Your task to perform on an android device: turn on bluetooth scan Image 0: 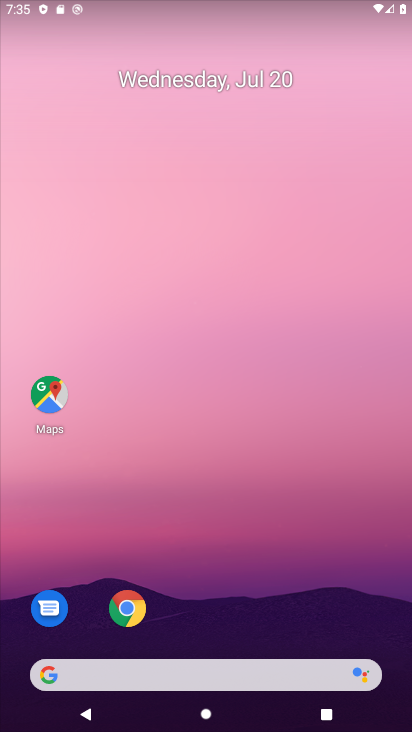
Step 0: drag from (187, 641) to (209, 123)
Your task to perform on an android device: turn on bluetooth scan Image 1: 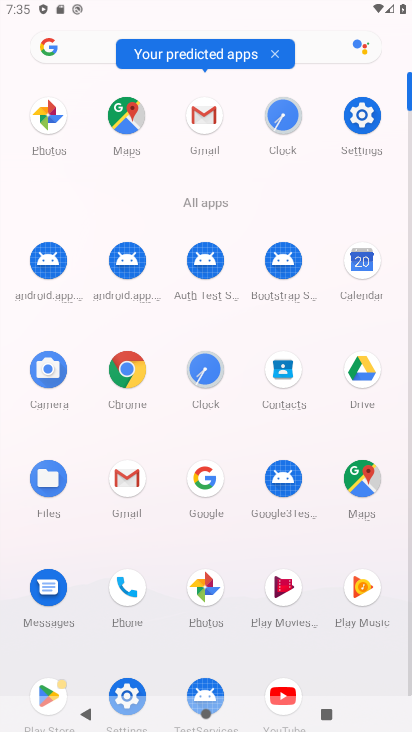
Step 1: click (136, 683)
Your task to perform on an android device: turn on bluetooth scan Image 2: 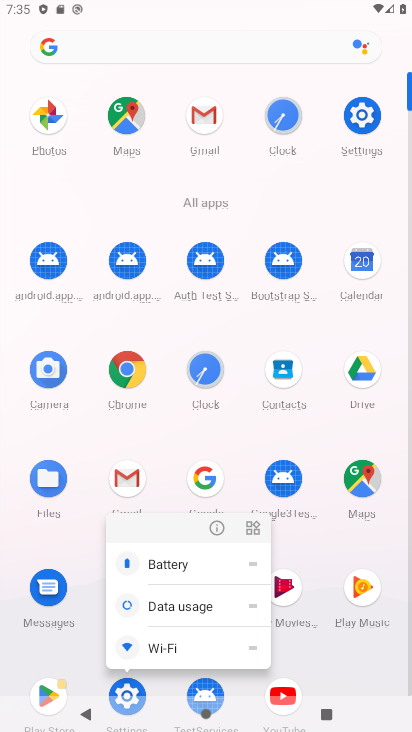
Step 2: click (136, 683)
Your task to perform on an android device: turn on bluetooth scan Image 3: 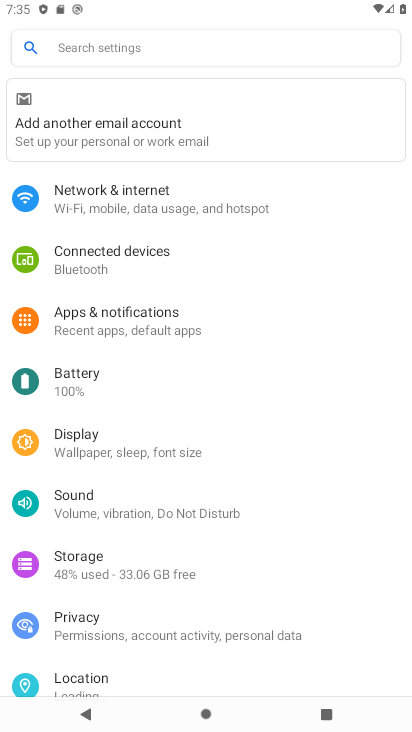
Step 3: click (106, 686)
Your task to perform on an android device: turn on bluetooth scan Image 4: 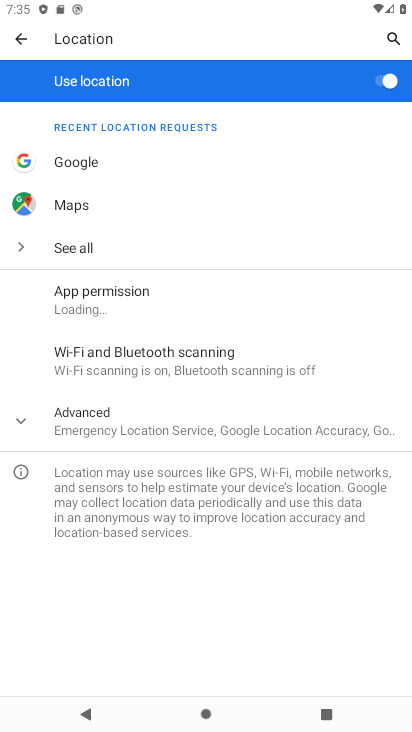
Step 4: click (165, 368)
Your task to perform on an android device: turn on bluetooth scan Image 5: 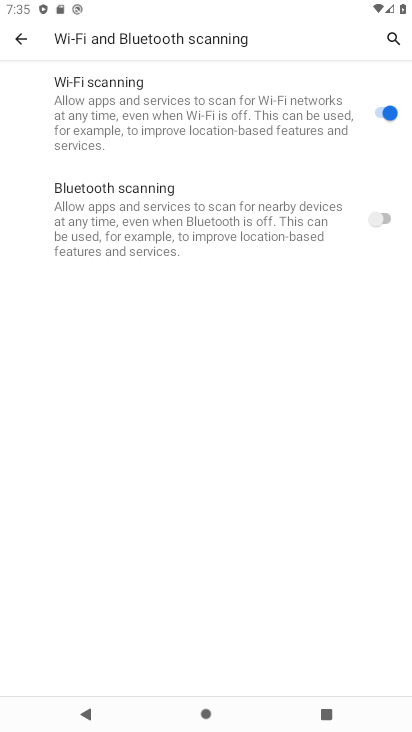
Step 5: click (351, 214)
Your task to perform on an android device: turn on bluetooth scan Image 6: 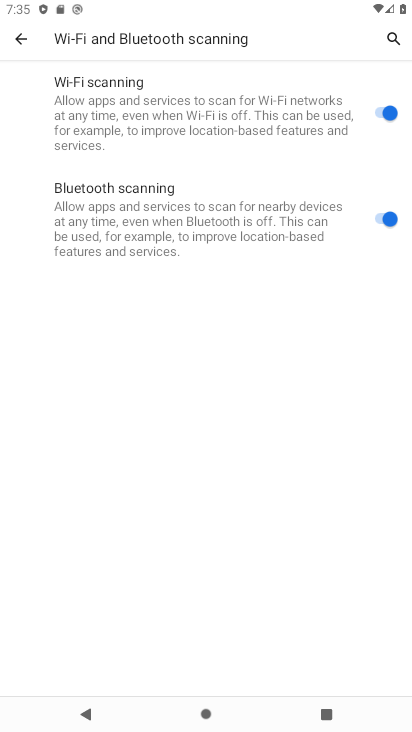
Step 6: task complete